Your task to perform on an android device: see sites visited before in the chrome app Image 0: 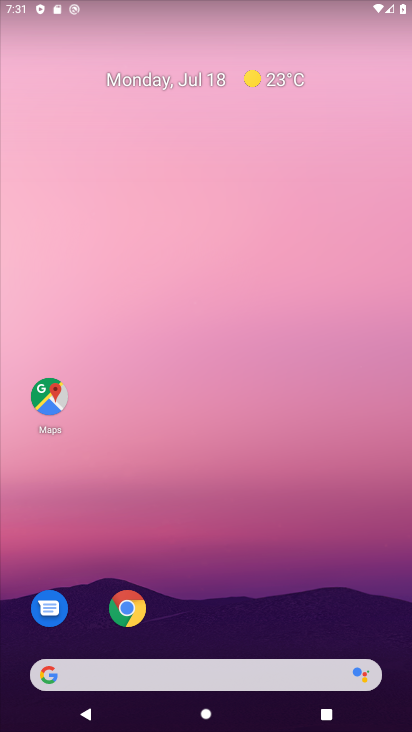
Step 0: click (117, 608)
Your task to perform on an android device: see sites visited before in the chrome app Image 1: 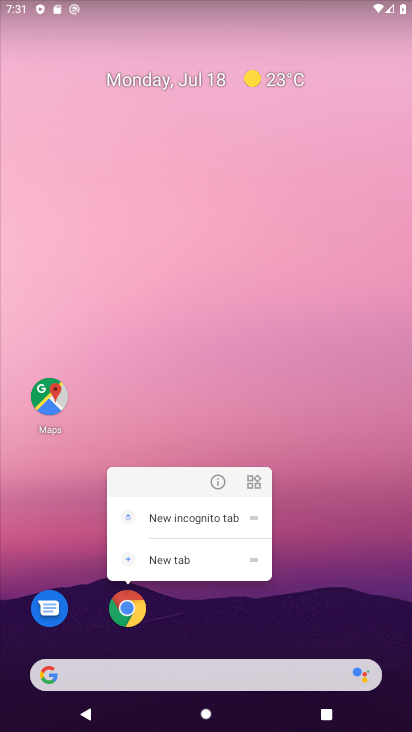
Step 1: click (134, 601)
Your task to perform on an android device: see sites visited before in the chrome app Image 2: 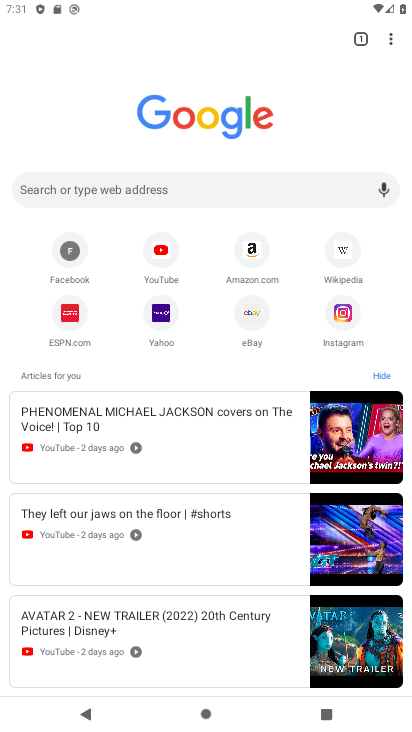
Step 2: click (391, 34)
Your task to perform on an android device: see sites visited before in the chrome app Image 3: 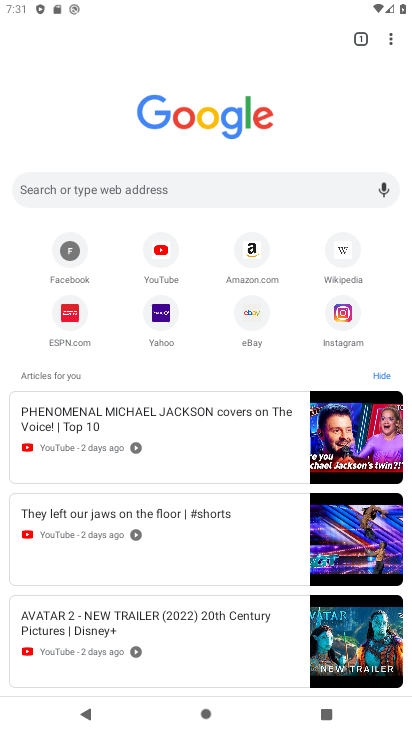
Step 3: click (393, 43)
Your task to perform on an android device: see sites visited before in the chrome app Image 4: 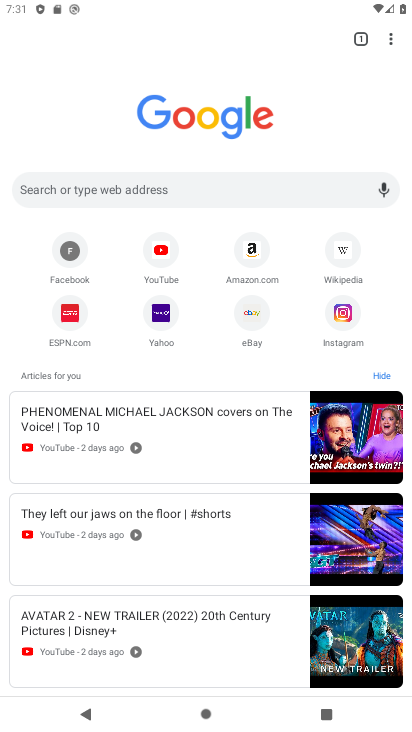
Step 4: click (386, 33)
Your task to perform on an android device: see sites visited before in the chrome app Image 5: 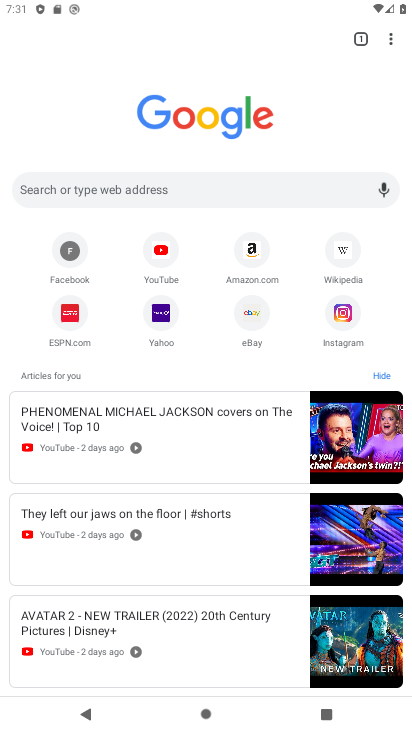
Step 5: click (390, 41)
Your task to perform on an android device: see sites visited before in the chrome app Image 6: 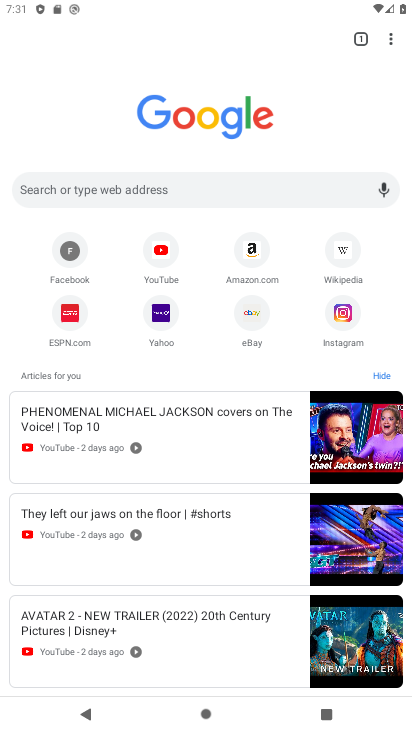
Step 6: click (395, 40)
Your task to perform on an android device: see sites visited before in the chrome app Image 7: 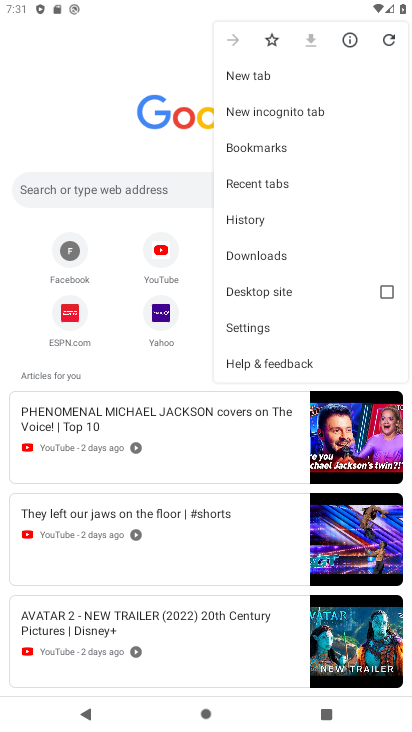
Step 7: click (295, 183)
Your task to perform on an android device: see sites visited before in the chrome app Image 8: 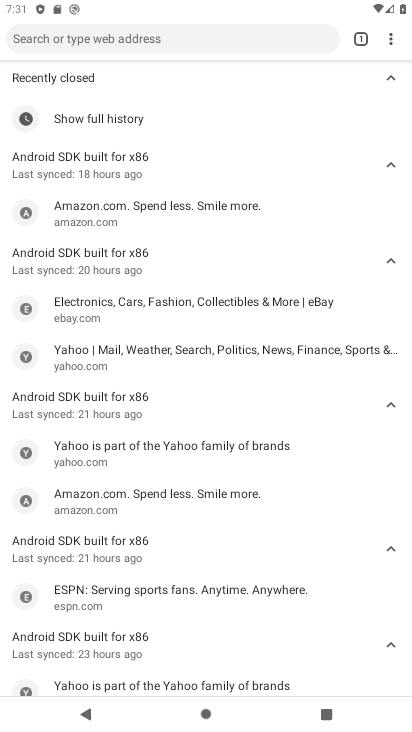
Step 8: task complete